Your task to perform on an android device: Search for "panasonic triple a" on walmart.com, select the first entry, and add it to the cart. Image 0: 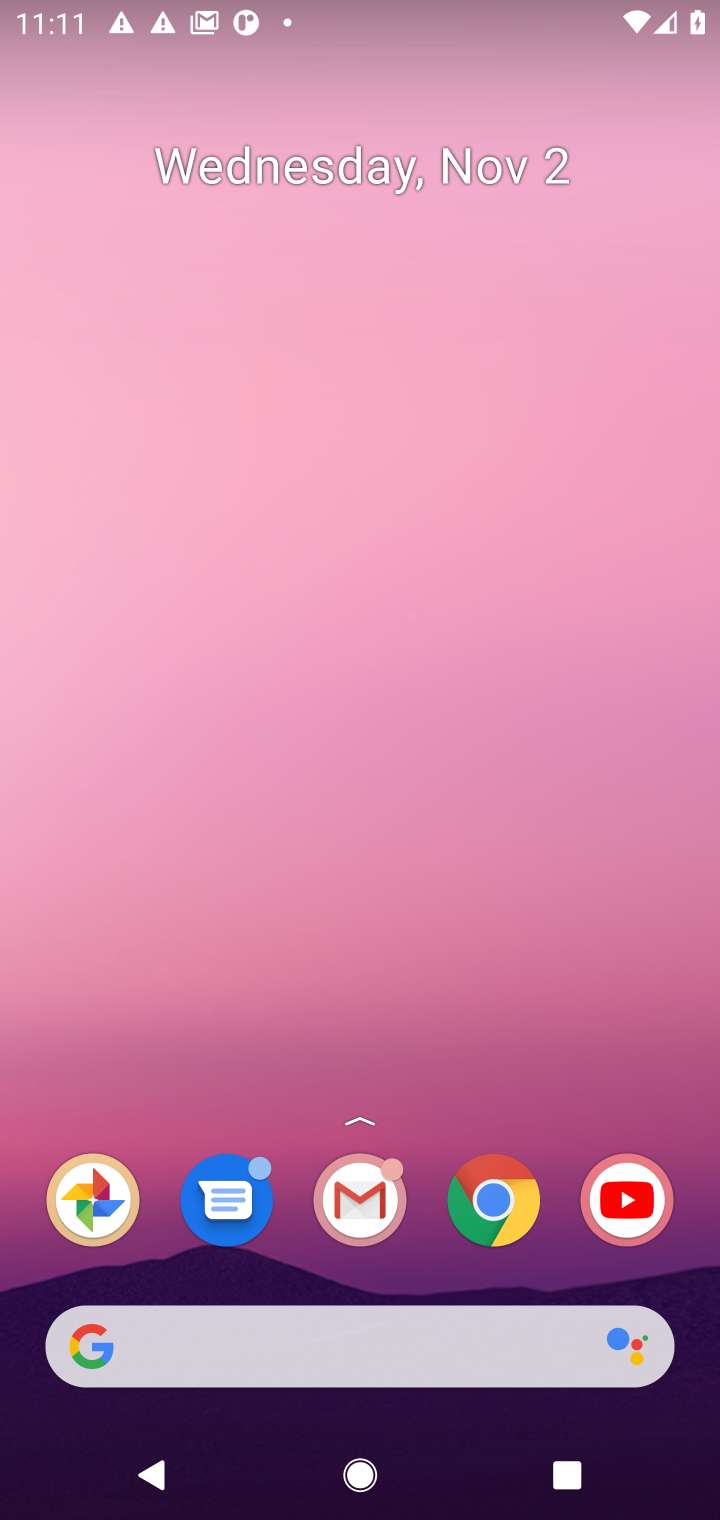
Step 0: click (469, 1203)
Your task to perform on an android device: Search for "panasonic triple a" on walmart.com, select the first entry, and add it to the cart. Image 1: 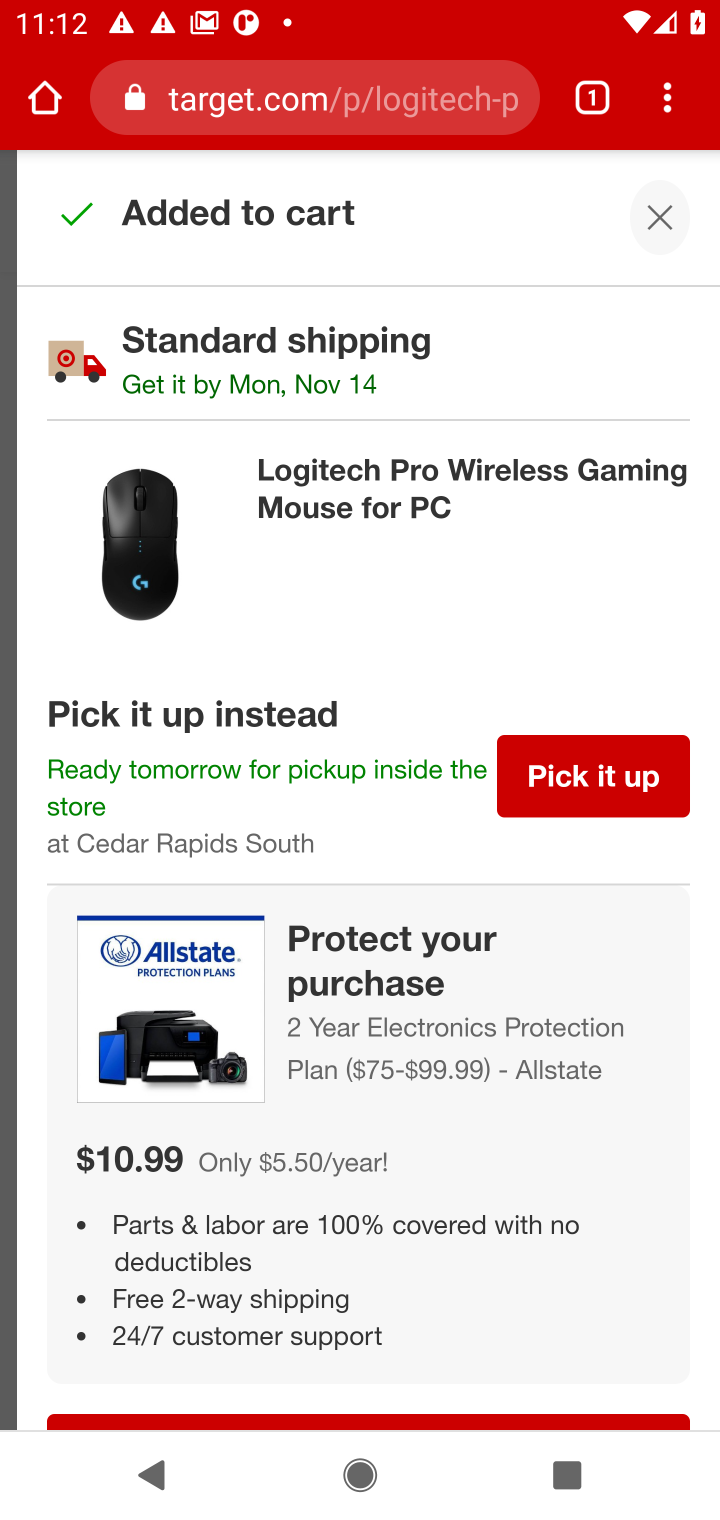
Step 1: click (391, 101)
Your task to perform on an android device: Search for "panasonic triple a" on walmart.com, select the first entry, and add it to the cart. Image 2: 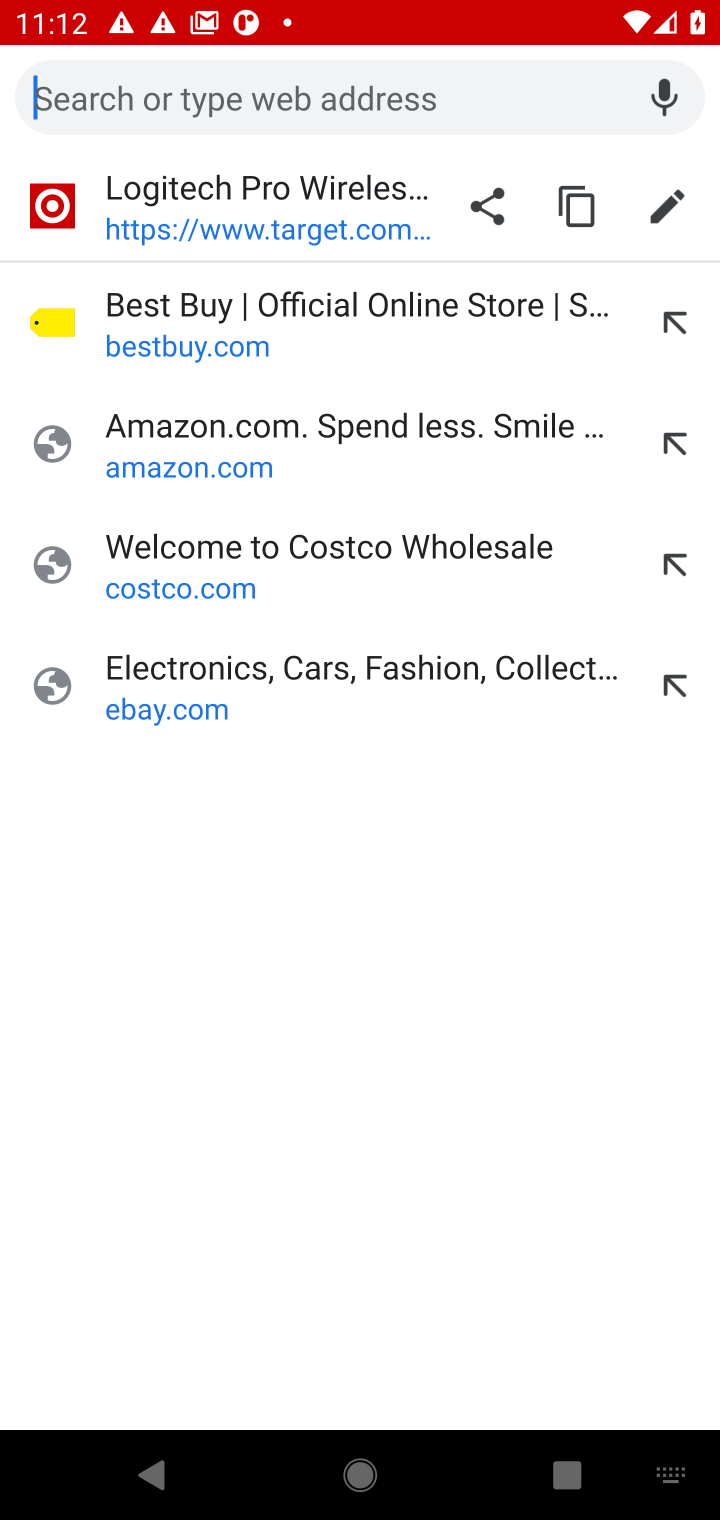
Step 2: type "walmart.com"
Your task to perform on an android device: Search for "panasonic triple a" on walmart.com, select the first entry, and add it to the cart. Image 3: 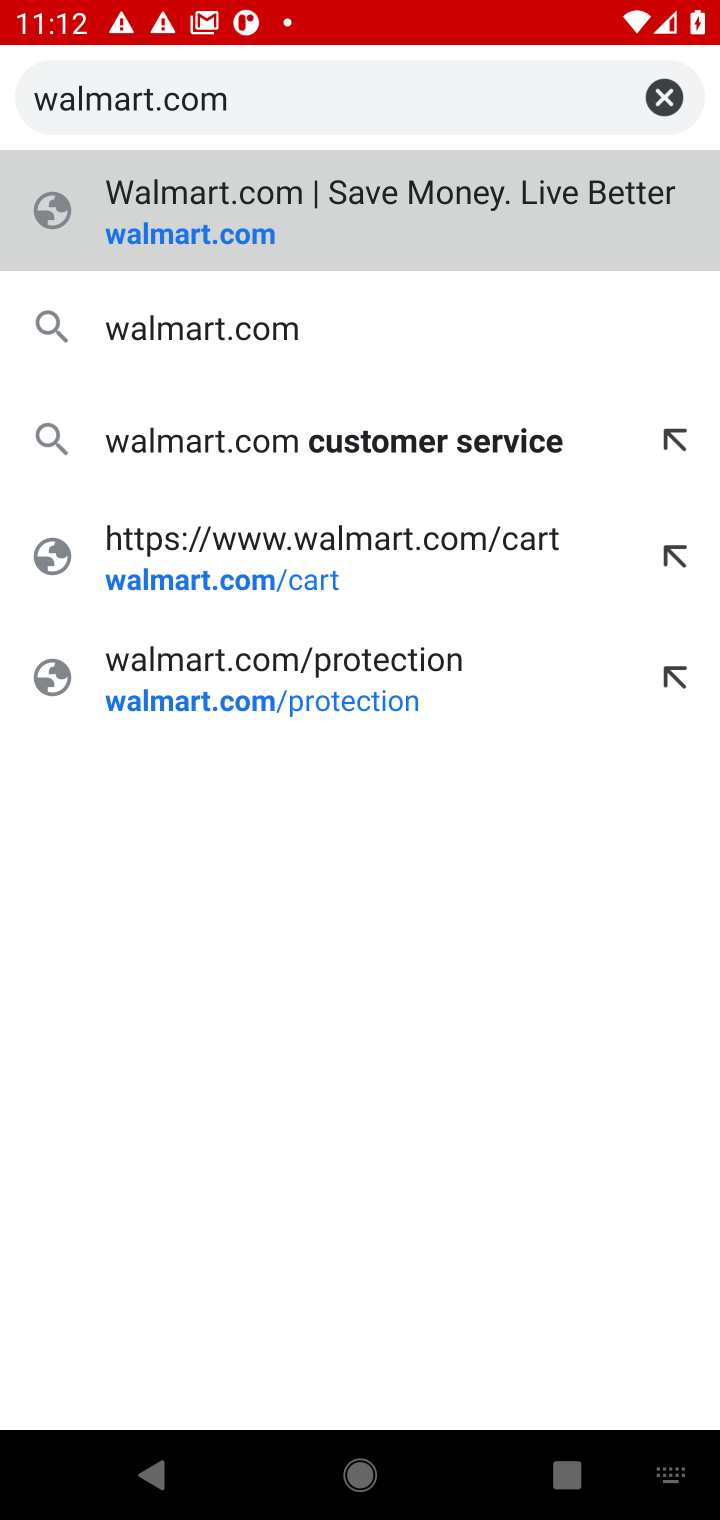
Step 3: press enter
Your task to perform on an android device: Search for "panasonic triple a" on walmart.com, select the first entry, and add it to the cart. Image 4: 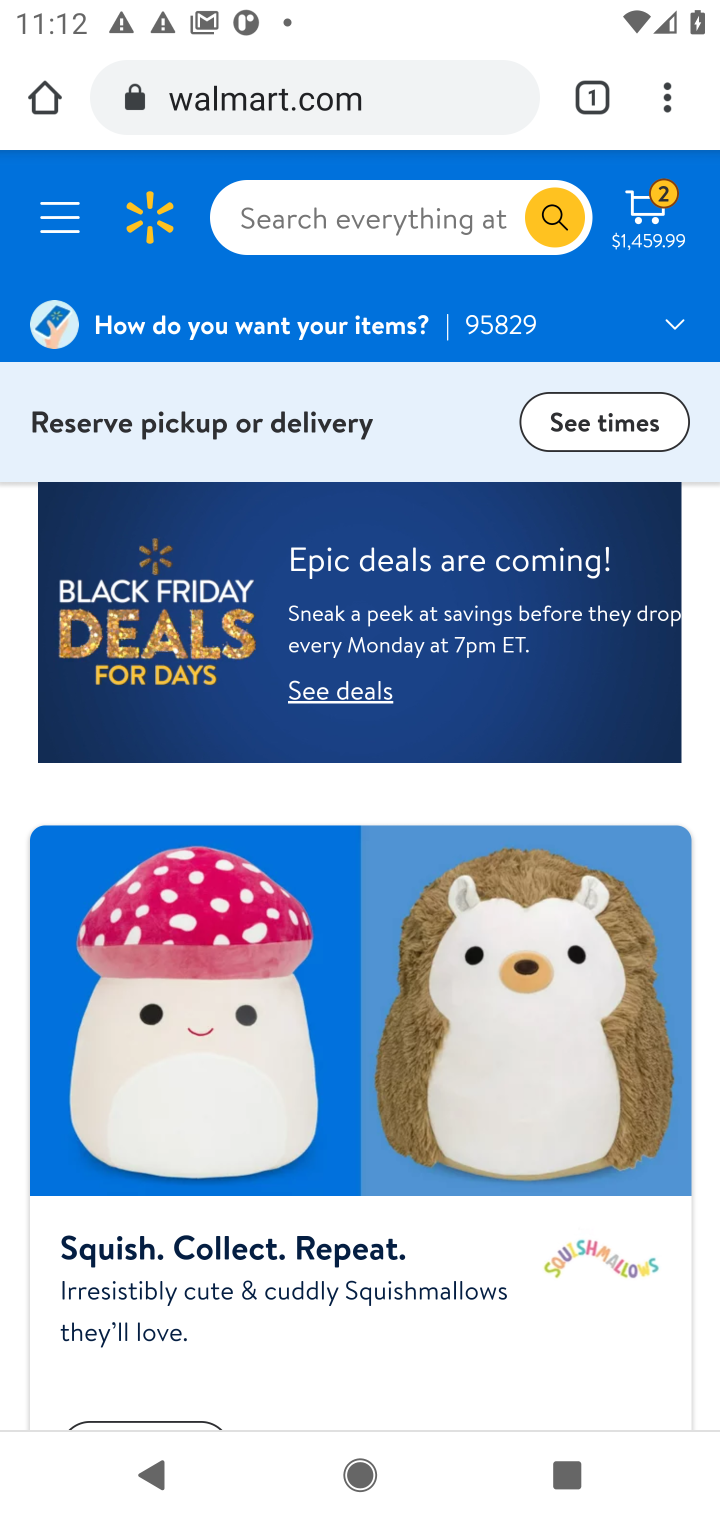
Step 4: click (360, 211)
Your task to perform on an android device: Search for "panasonic triple a" on walmart.com, select the first entry, and add it to the cart. Image 5: 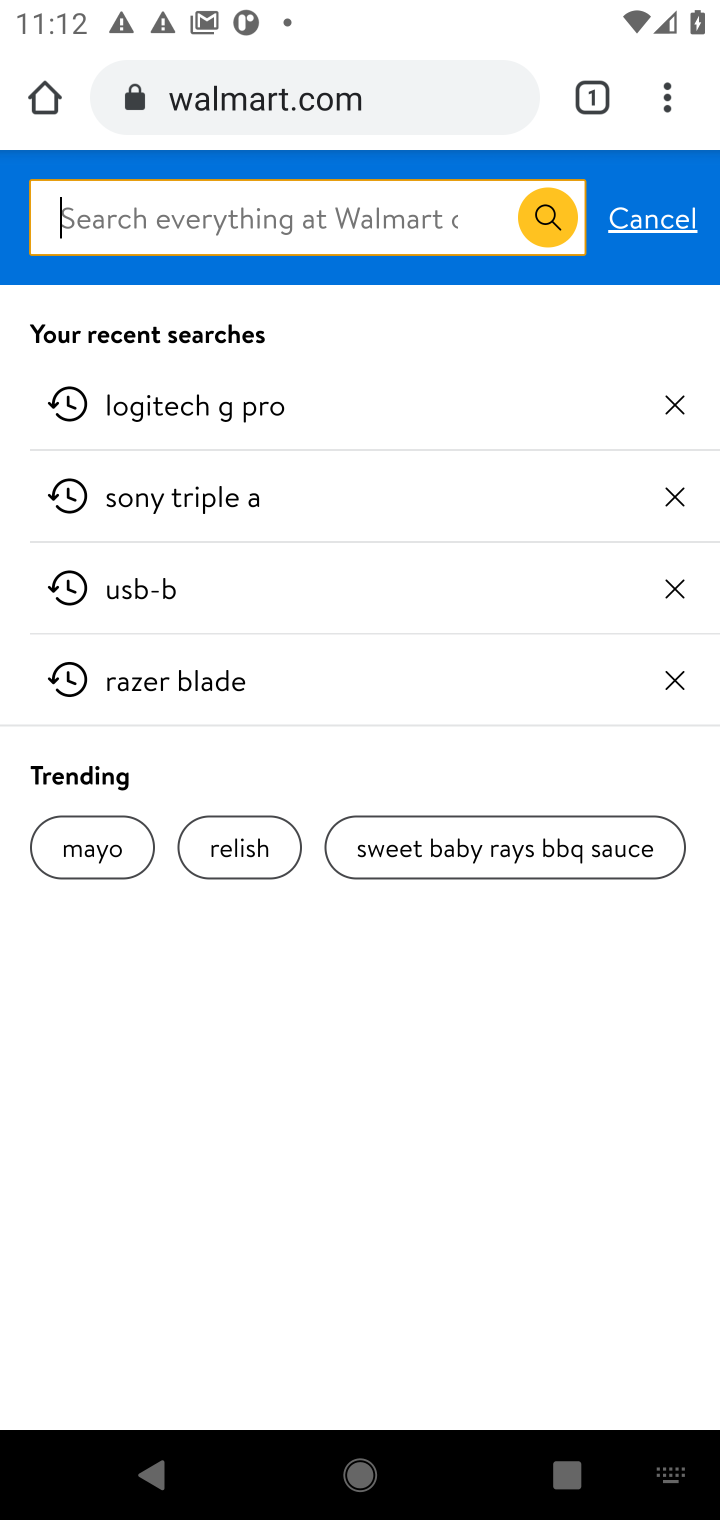
Step 5: type "panasonic triple a"
Your task to perform on an android device: Search for "panasonic triple a" on walmart.com, select the first entry, and add it to the cart. Image 6: 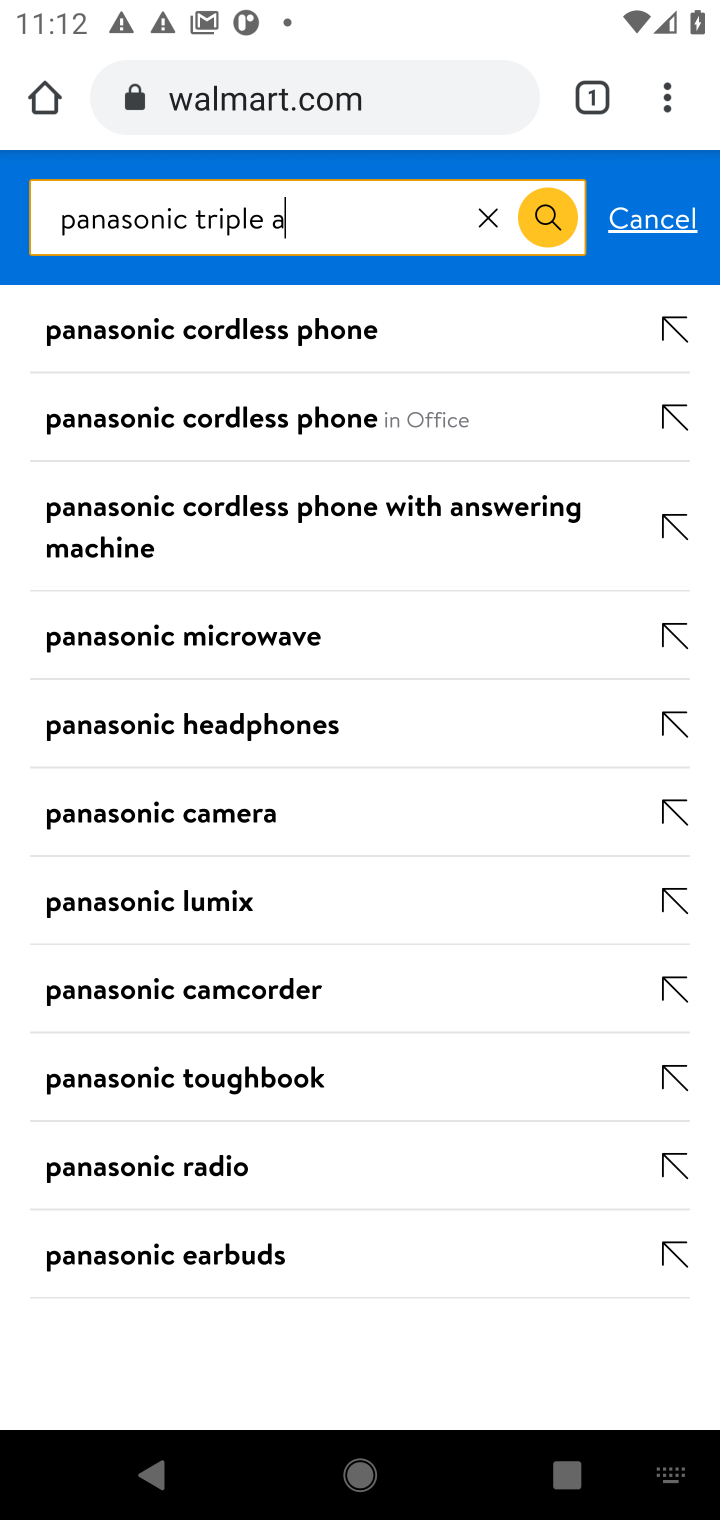
Step 6: press enter
Your task to perform on an android device: Search for "panasonic triple a" on walmart.com, select the first entry, and add it to the cart. Image 7: 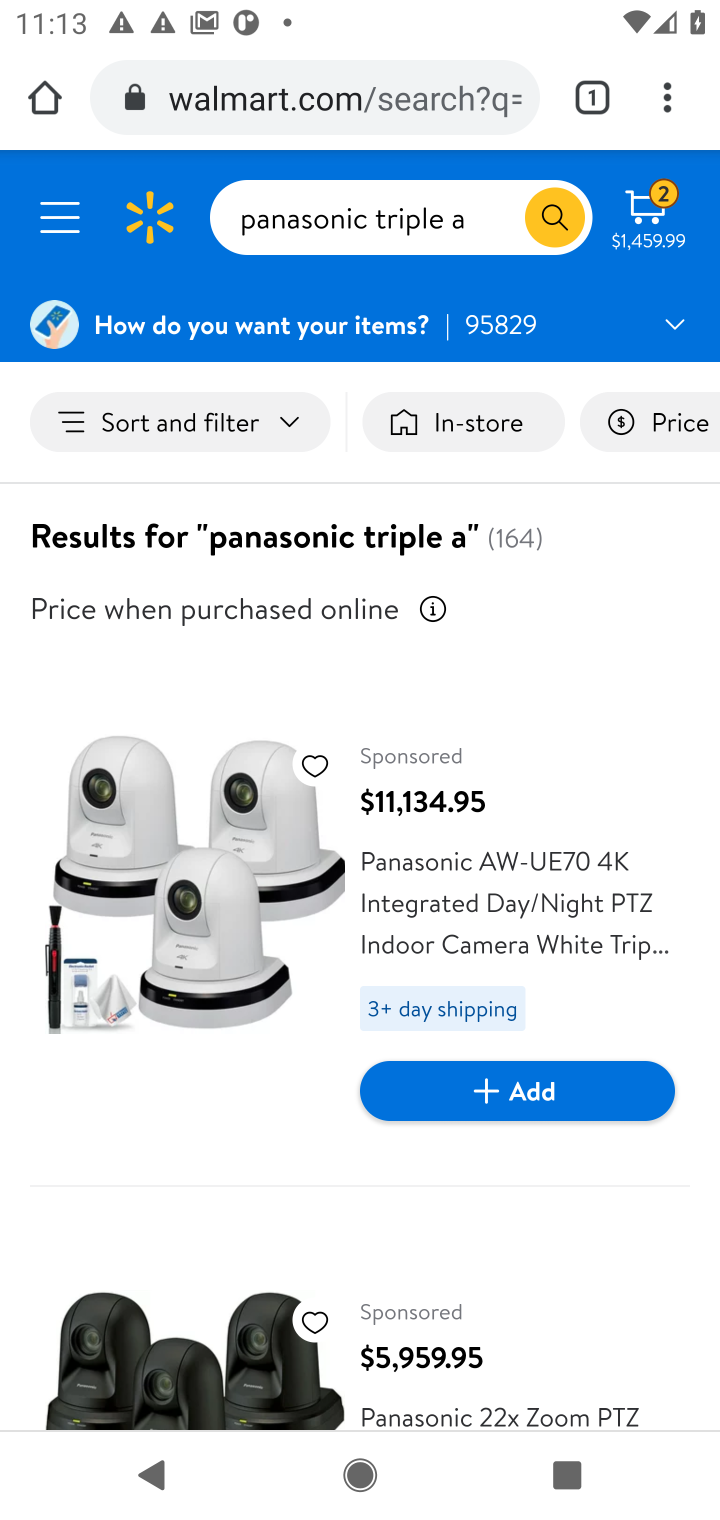
Step 7: drag from (269, 1230) to (278, 682)
Your task to perform on an android device: Search for "panasonic triple a" on walmart.com, select the first entry, and add it to the cart. Image 8: 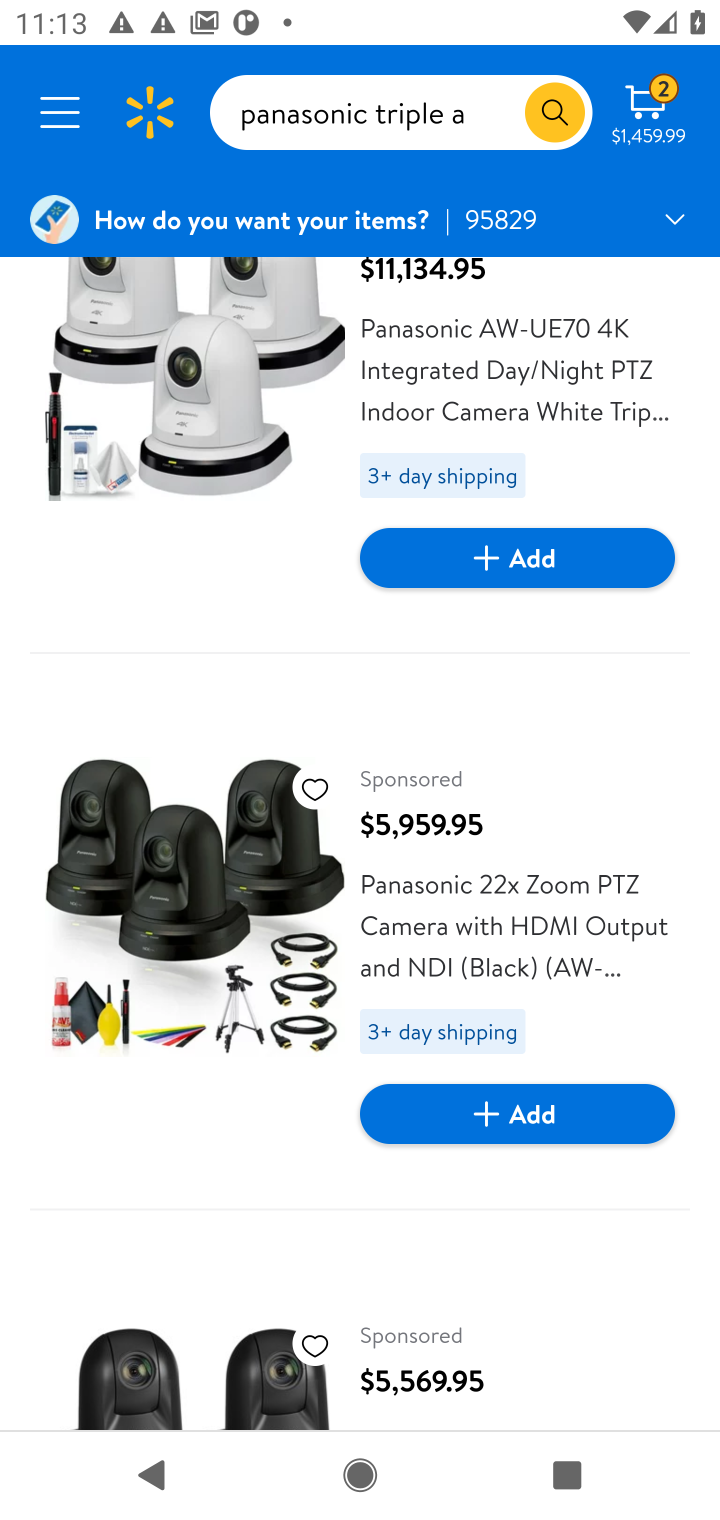
Step 8: drag from (206, 1065) to (246, 617)
Your task to perform on an android device: Search for "panasonic triple a" on walmart.com, select the first entry, and add it to the cart. Image 9: 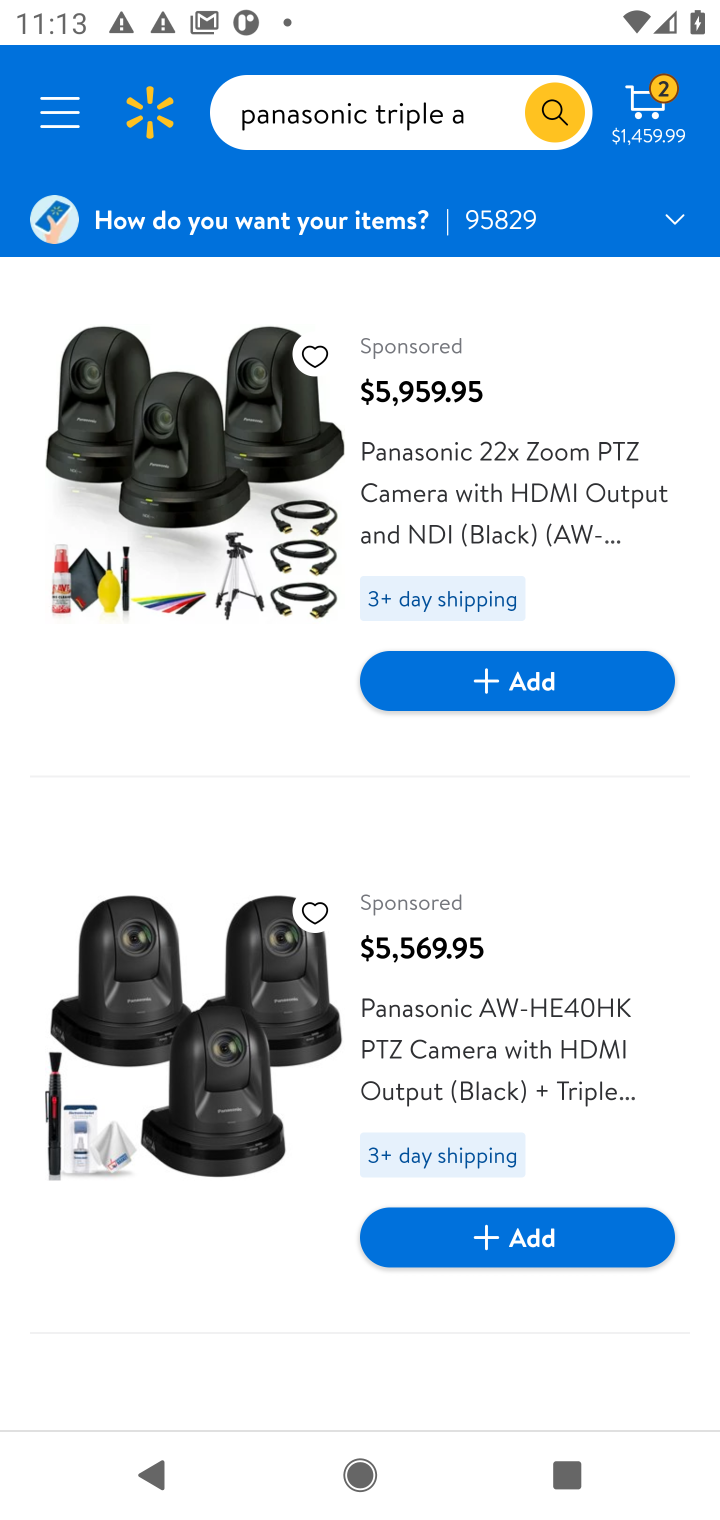
Step 9: drag from (222, 1121) to (191, 463)
Your task to perform on an android device: Search for "panasonic triple a" on walmart.com, select the first entry, and add it to the cart. Image 10: 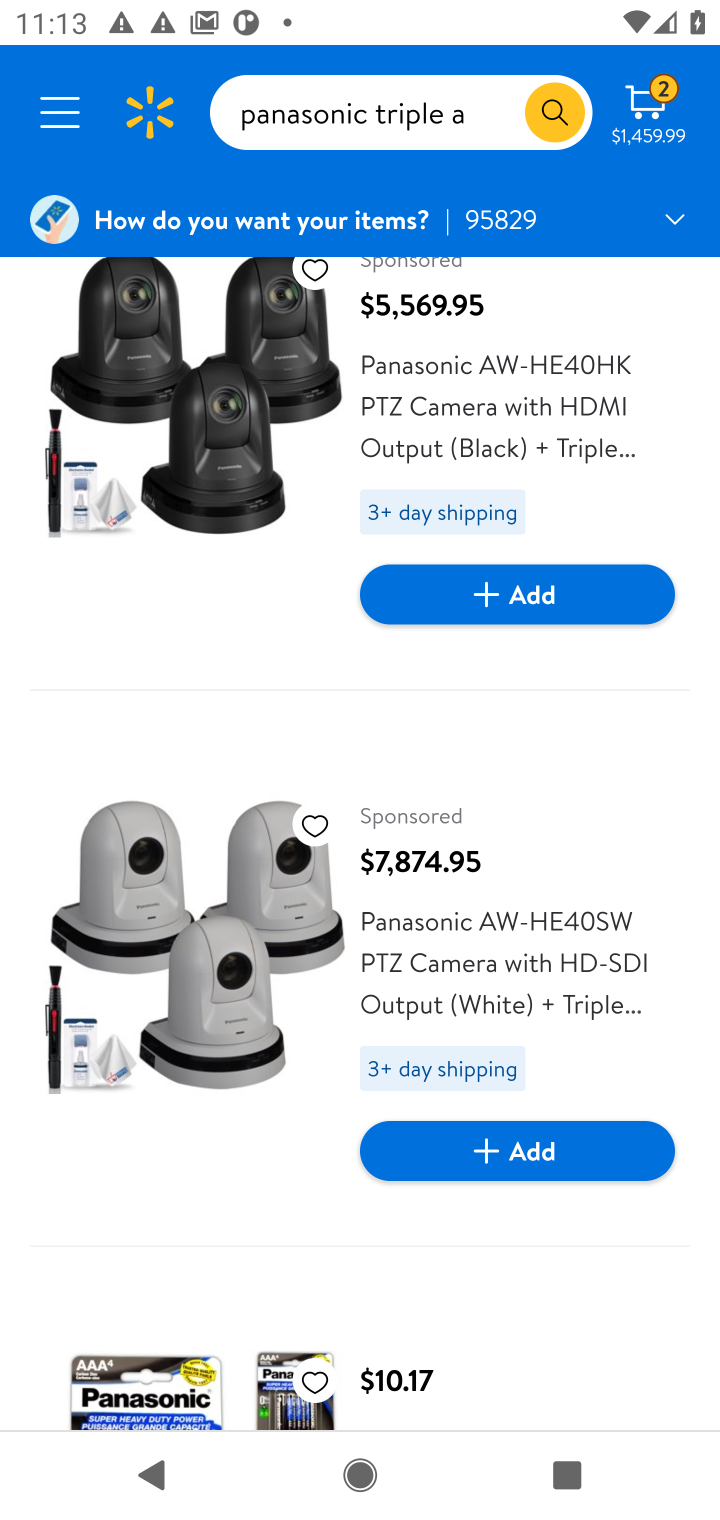
Step 10: drag from (95, 1108) to (143, 582)
Your task to perform on an android device: Search for "panasonic triple a" on walmart.com, select the first entry, and add it to the cart. Image 11: 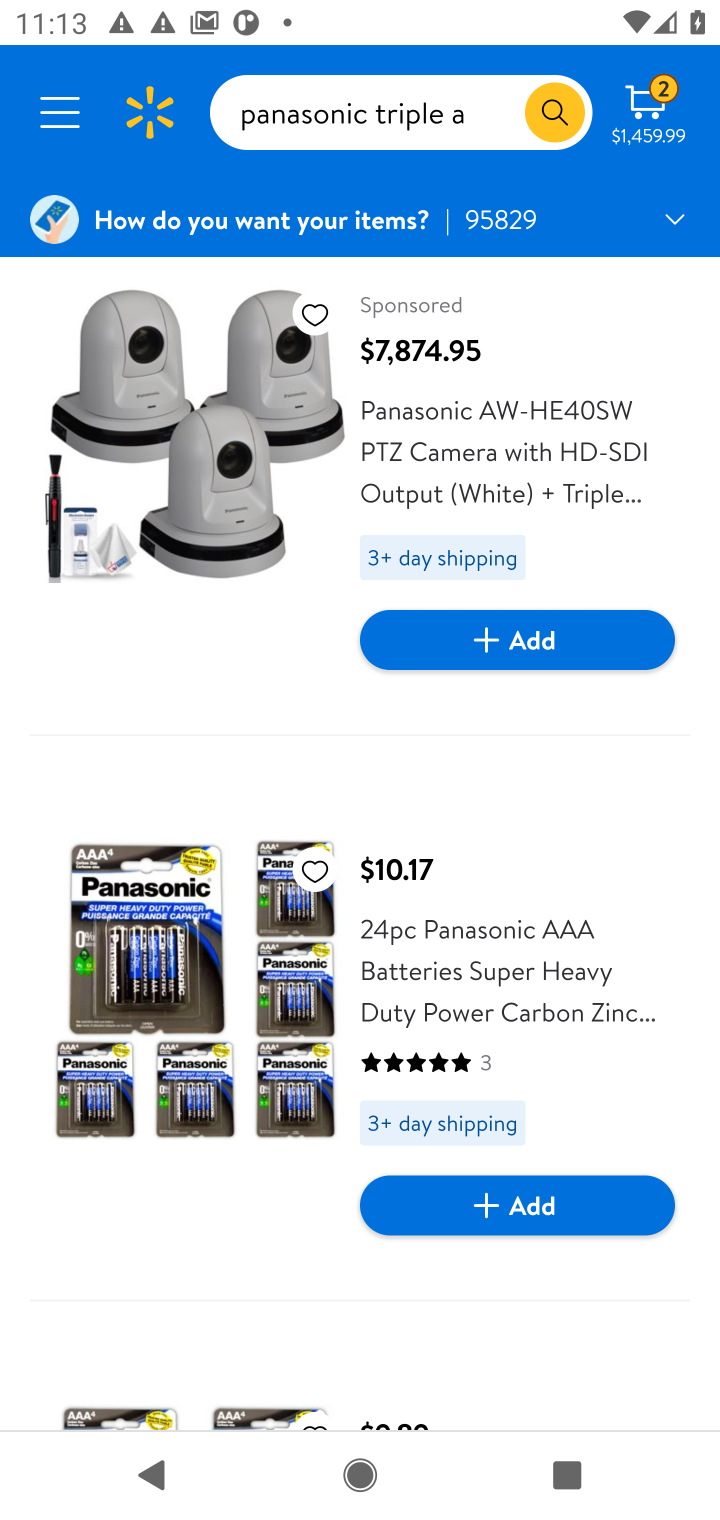
Step 11: click (164, 1003)
Your task to perform on an android device: Search for "panasonic triple a" on walmart.com, select the first entry, and add it to the cart. Image 12: 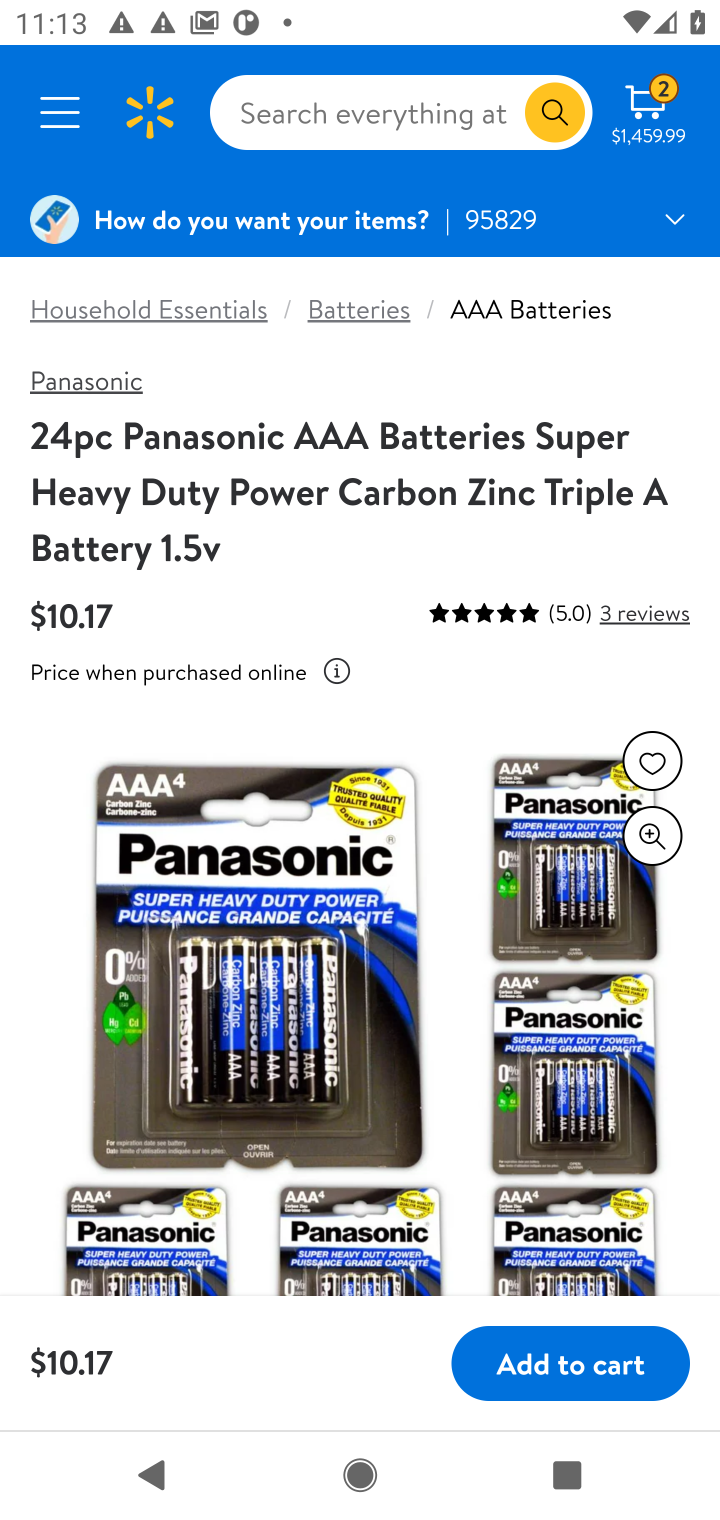
Step 12: click (587, 1350)
Your task to perform on an android device: Search for "panasonic triple a" on walmart.com, select the first entry, and add it to the cart. Image 13: 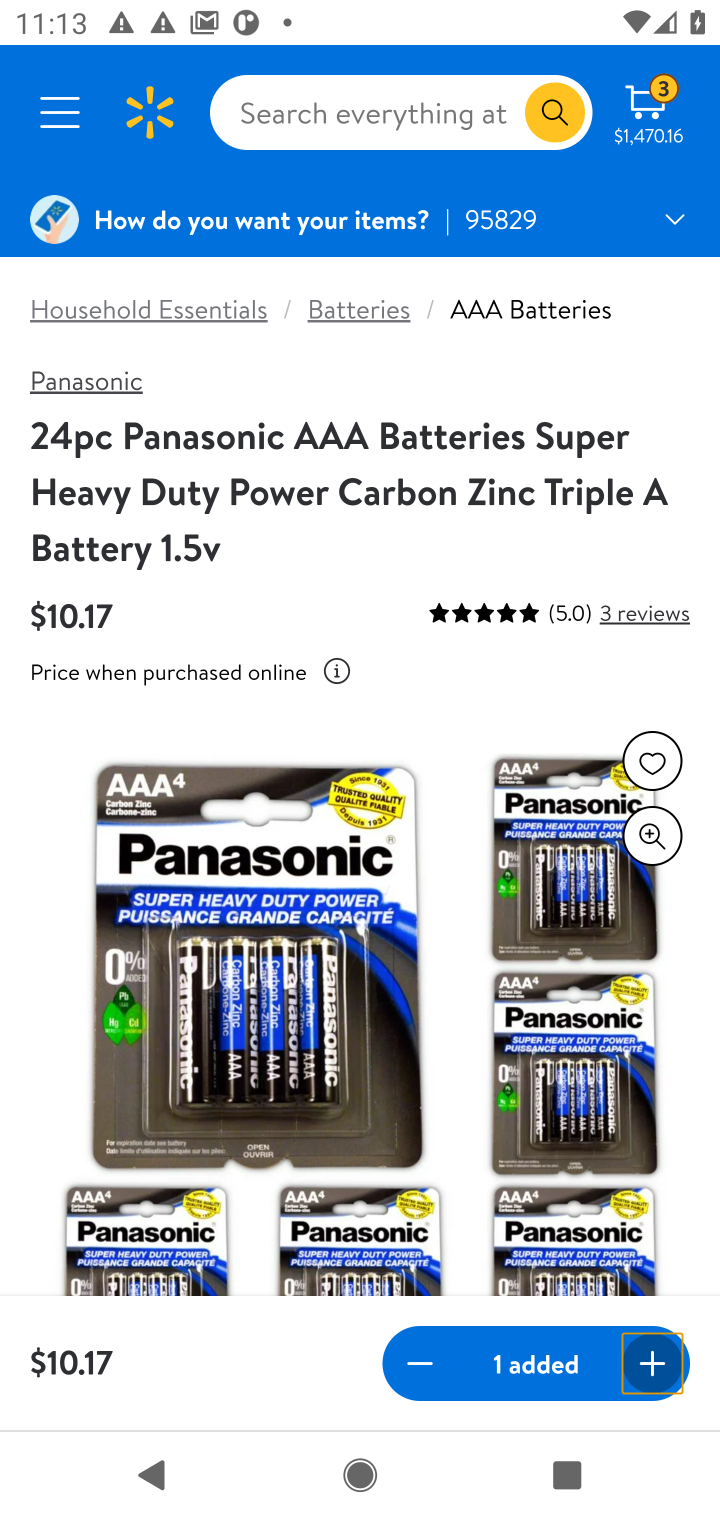
Step 13: task complete